Your task to perform on an android device: toggle notifications settings in the gmail app Image 0: 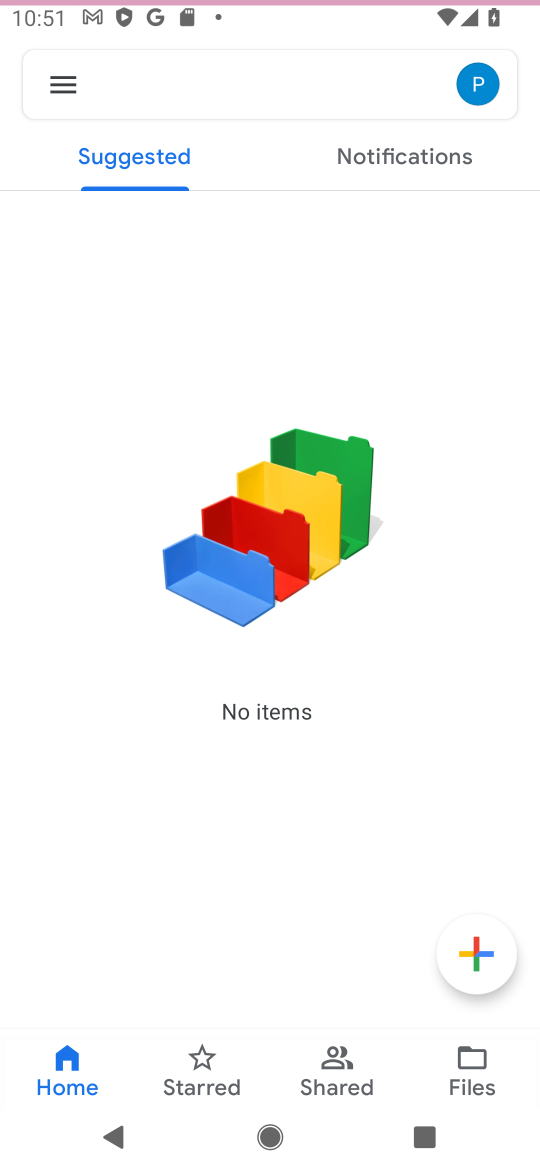
Step 0: press home button
Your task to perform on an android device: toggle notifications settings in the gmail app Image 1: 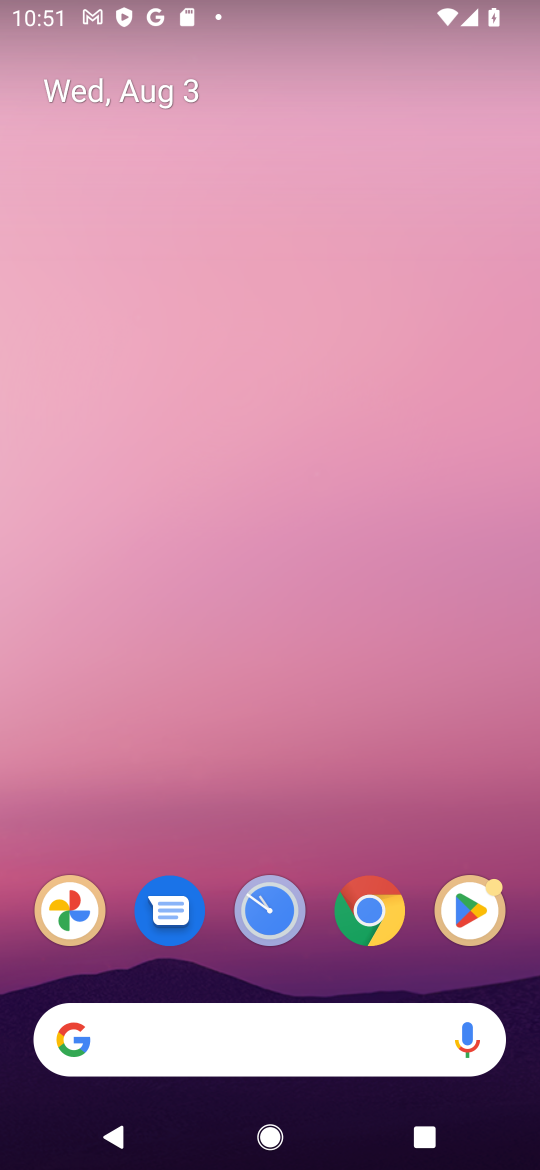
Step 1: drag from (318, 914) to (334, 316)
Your task to perform on an android device: toggle notifications settings in the gmail app Image 2: 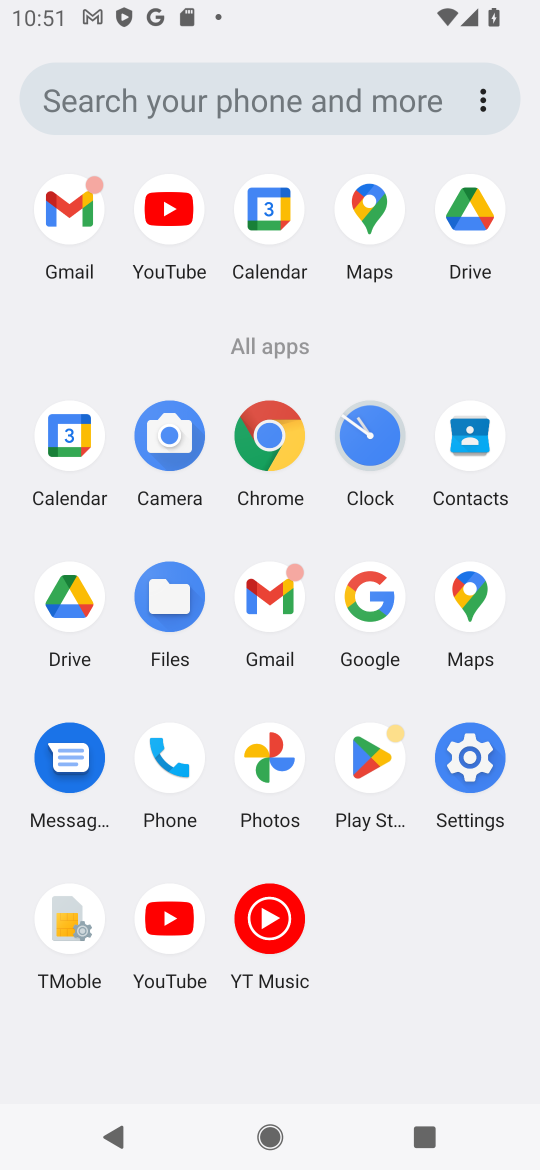
Step 2: click (63, 214)
Your task to perform on an android device: toggle notifications settings in the gmail app Image 3: 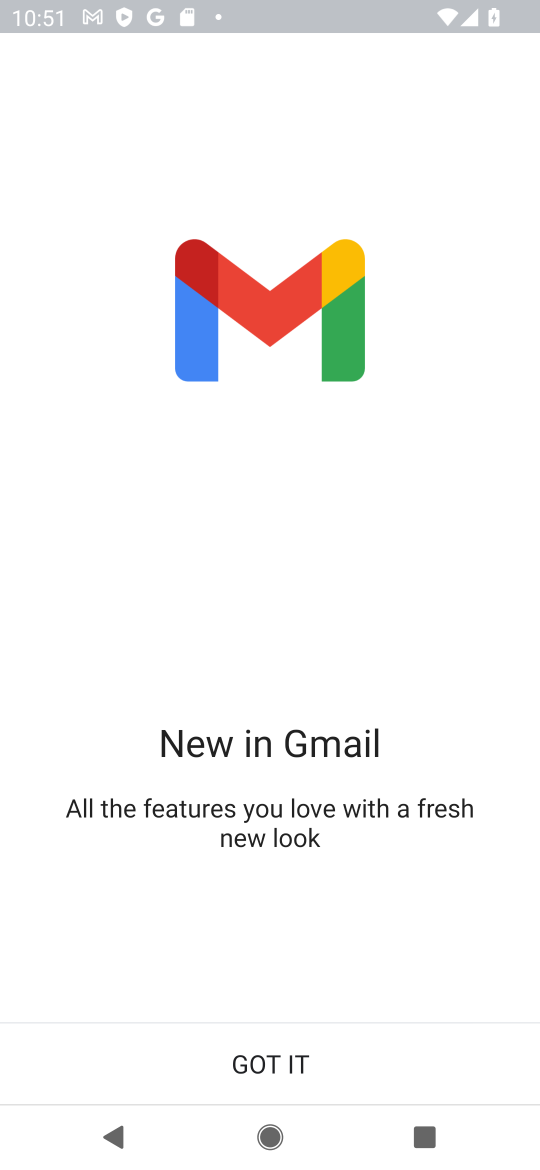
Step 3: click (260, 1062)
Your task to perform on an android device: toggle notifications settings in the gmail app Image 4: 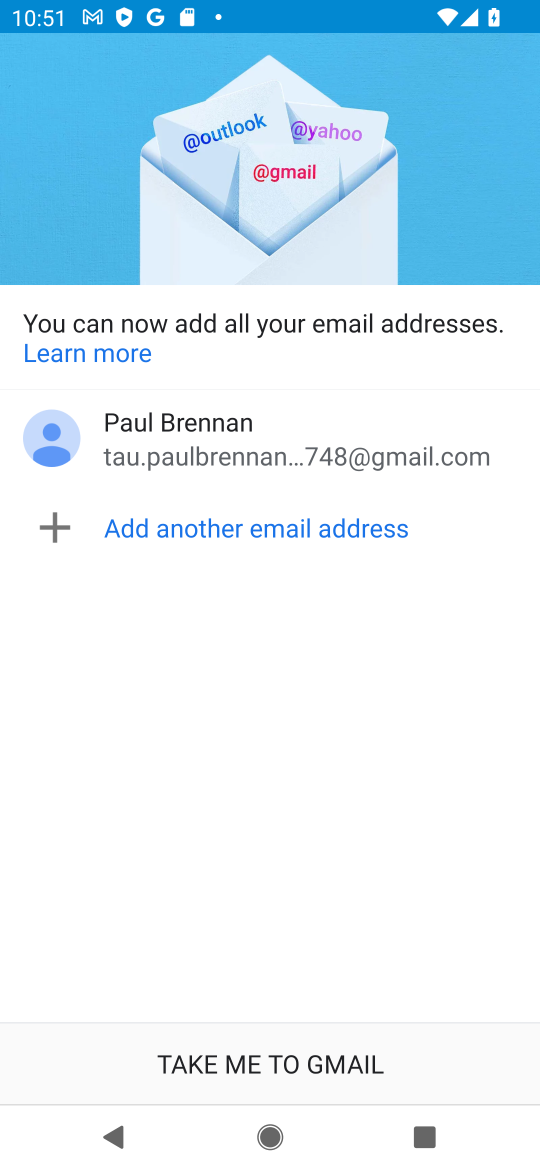
Step 4: click (291, 1062)
Your task to perform on an android device: toggle notifications settings in the gmail app Image 5: 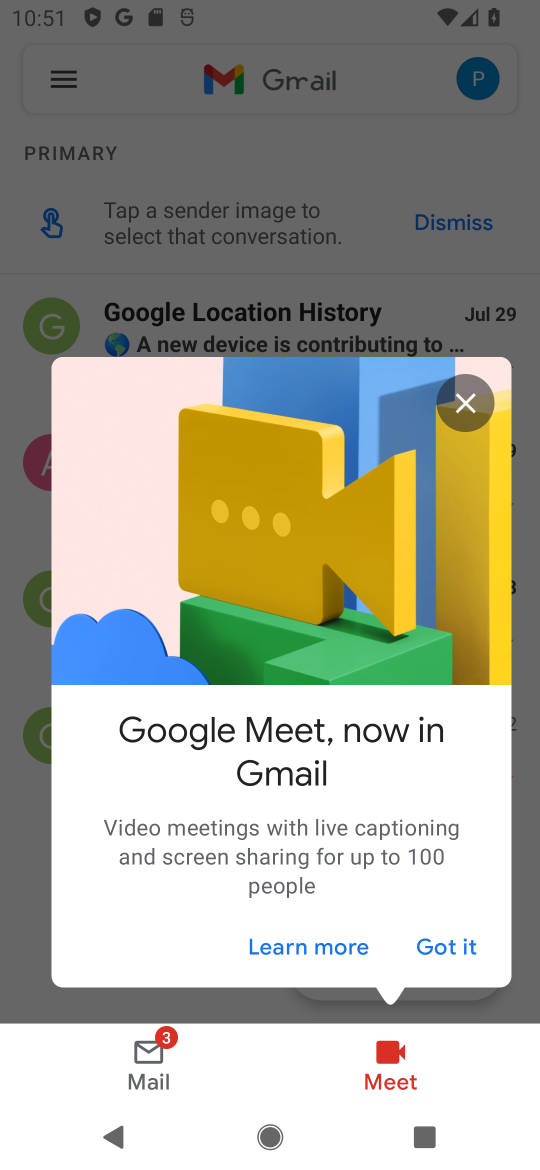
Step 5: click (456, 947)
Your task to perform on an android device: toggle notifications settings in the gmail app Image 6: 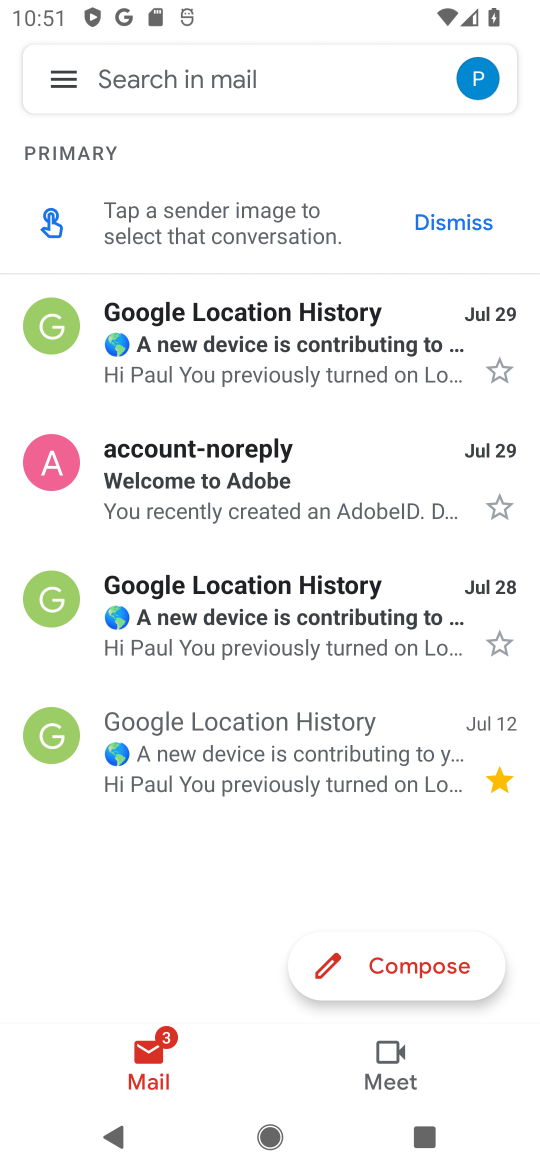
Step 6: click (47, 84)
Your task to perform on an android device: toggle notifications settings in the gmail app Image 7: 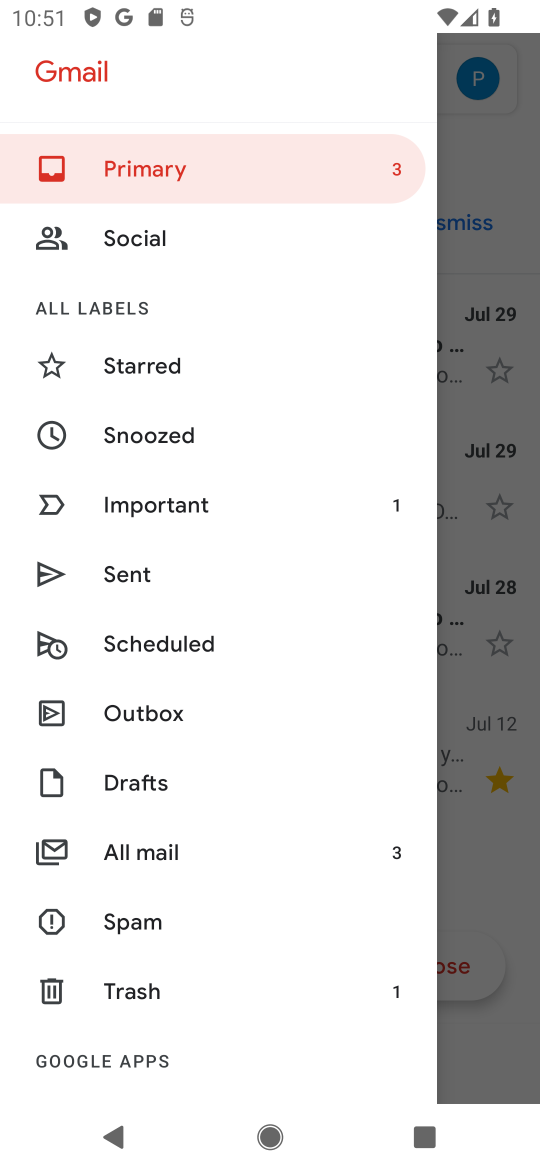
Step 7: drag from (303, 999) to (319, 266)
Your task to perform on an android device: toggle notifications settings in the gmail app Image 8: 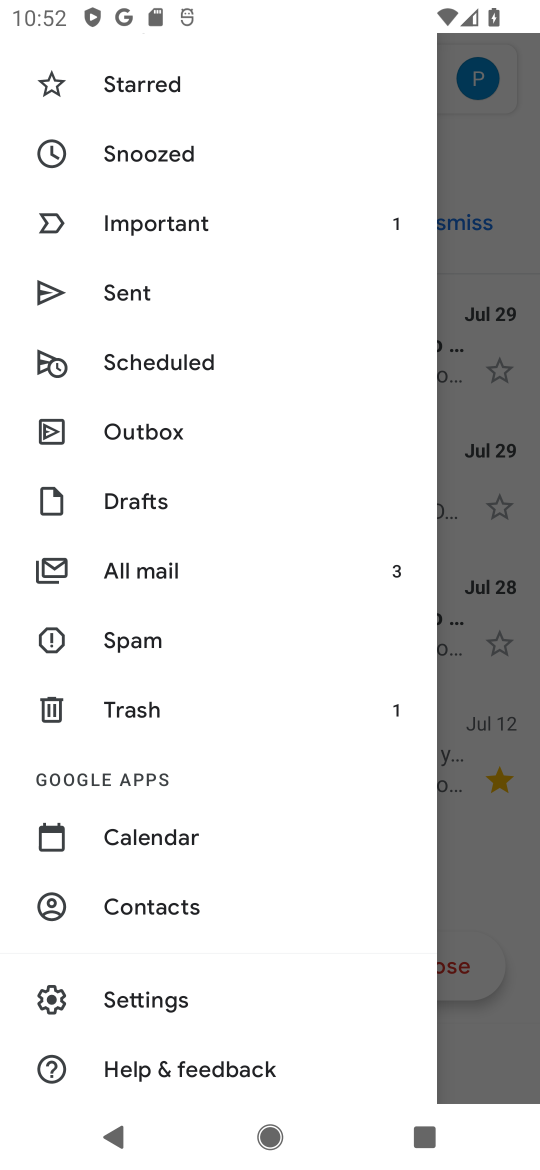
Step 8: click (134, 992)
Your task to perform on an android device: toggle notifications settings in the gmail app Image 9: 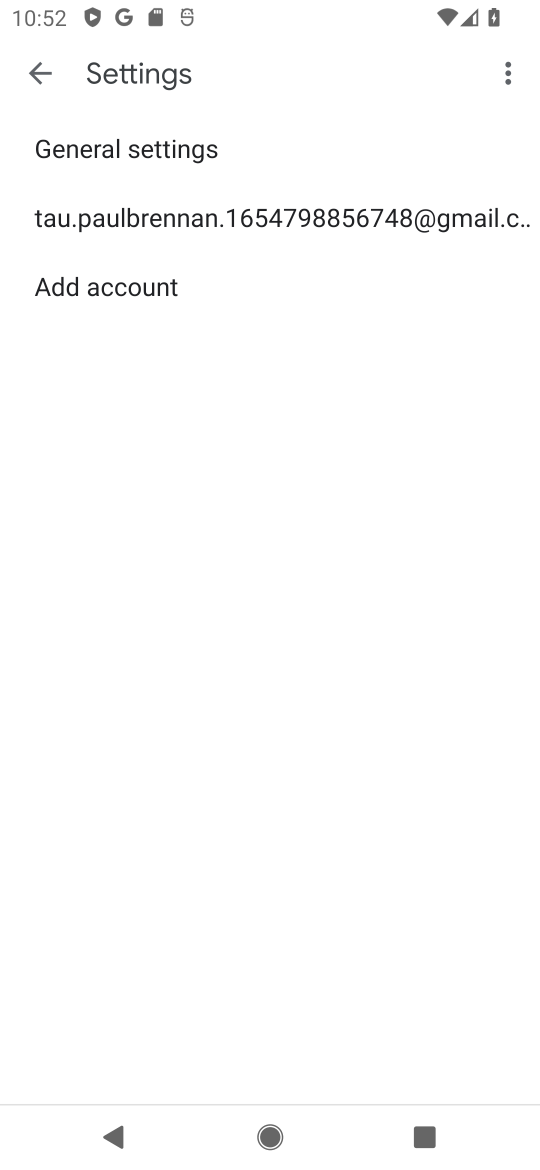
Step 9: click (155, 222)
Your task to perform on an android device: toggle notifications settings in the gmail app Image 10: 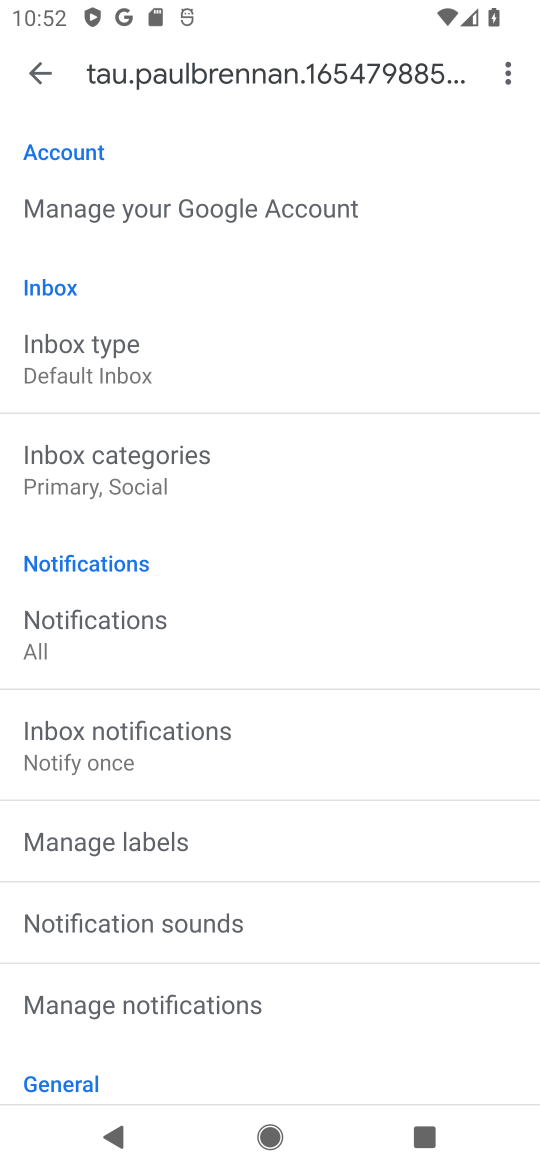
Step 10: click (159, 1013)
Your task to perform on an android device: toggle notifications settings in the gmail app Image 11: 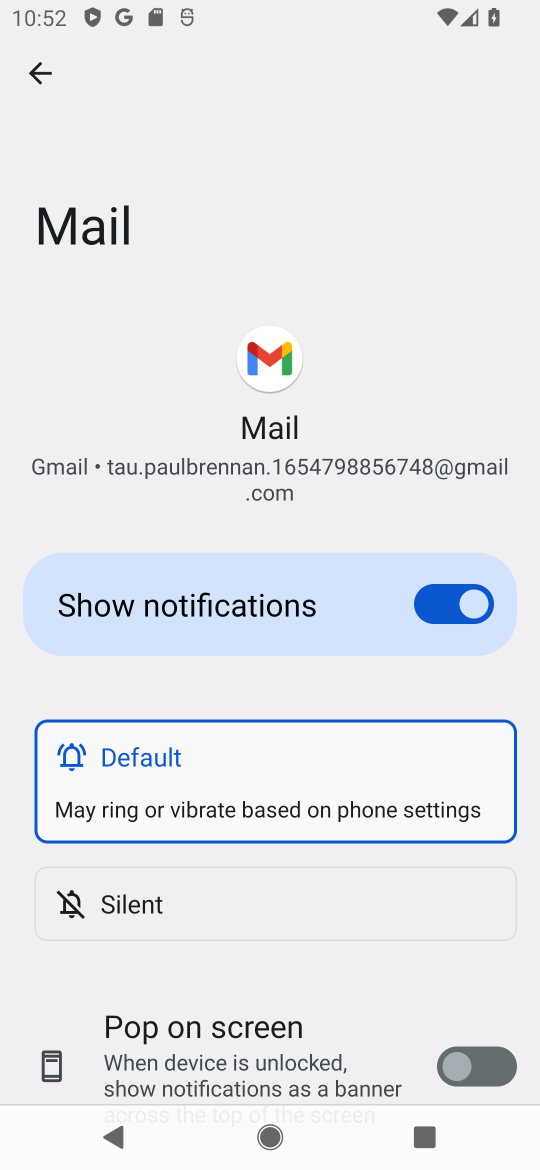
Step 11: click (472, 605)
Your task to perform on an android device: toggle notifications settings in the gmail app Image 12: 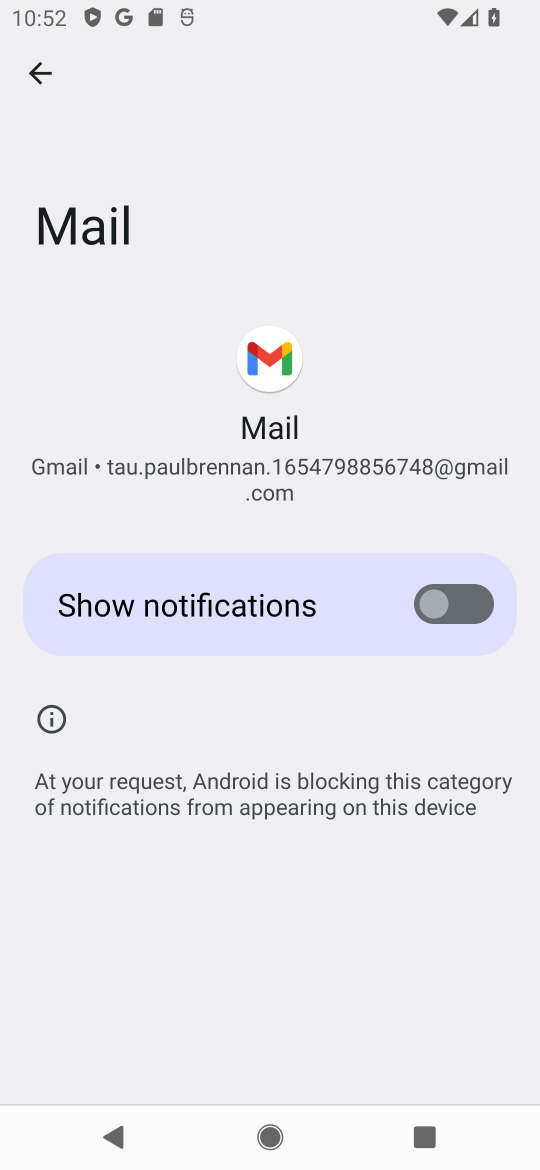
Step 12: task complete